Your task to perform on an android device: Go to Yahoo.com Image 0: 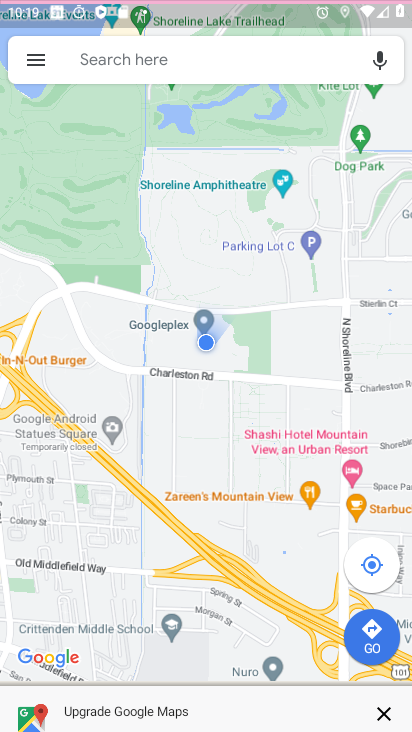
Step 0: press home button
Your task to perform on an android device: Go to Yahoo.com Image 1: 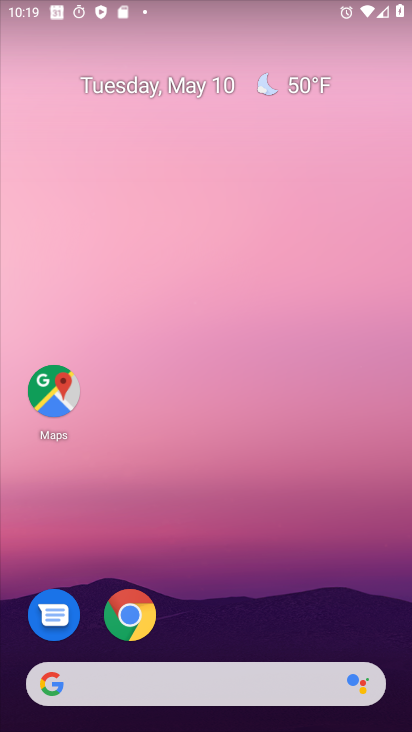
Step 1: click (128, 611)
Your task to perform on an android device: Go to Yahoo.com Image 2: 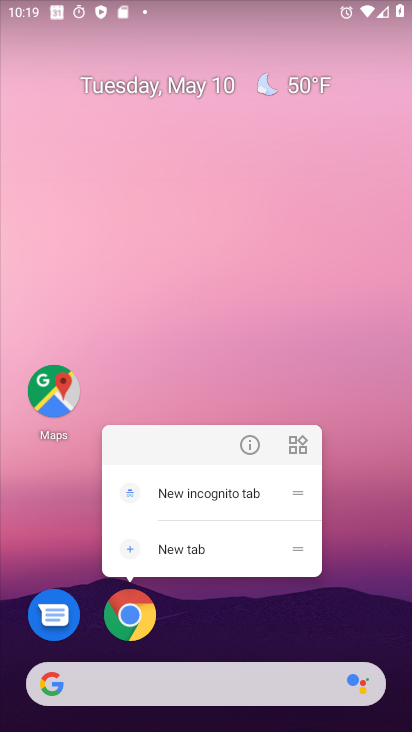
Step 2: click (128, 613)
Your task to perform on an android device: Go to Yahoo.com Image 3: 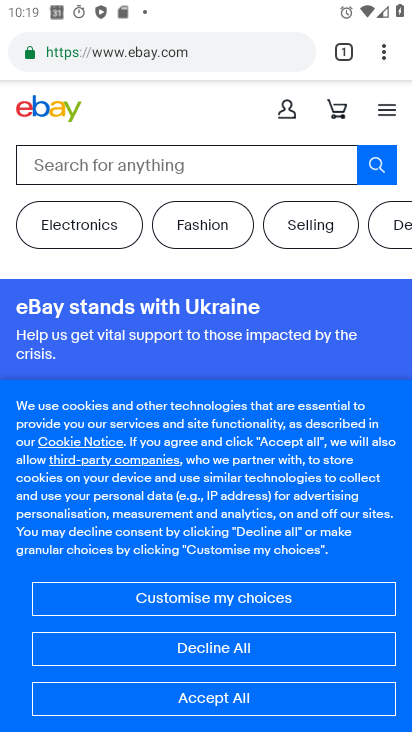
Step 3: click (342, 47)
Your task to perform on an android device: Go to Yahoo.com Image 4: 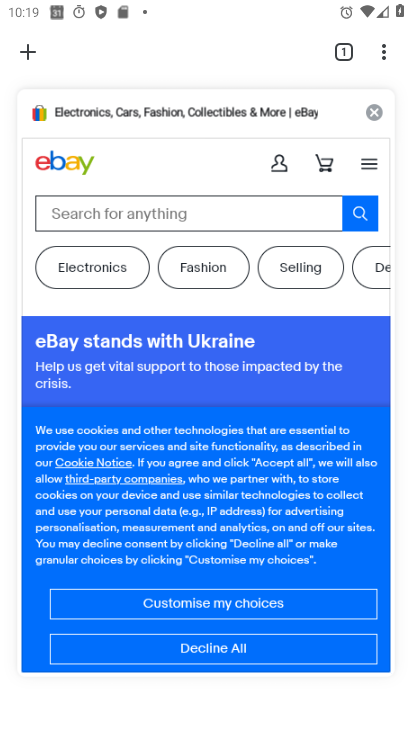
Step 4: click (372, 109)
Your task to perform on an android device: Go to Yahoo.com Image 5: 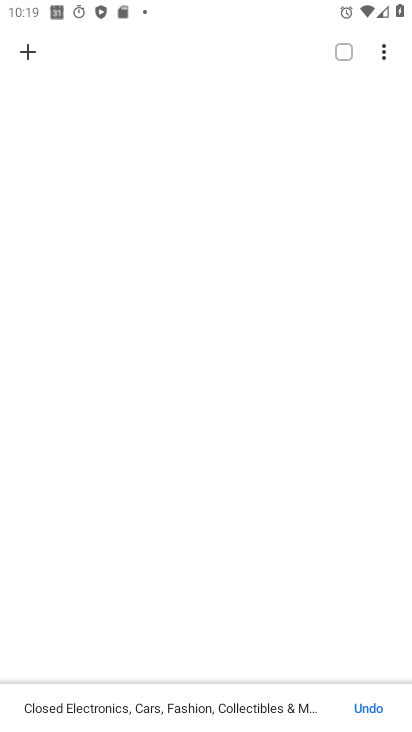
Step 5: click (28, 53)
Your task to perform on an android device: Go to Yahoo.com Image 6: 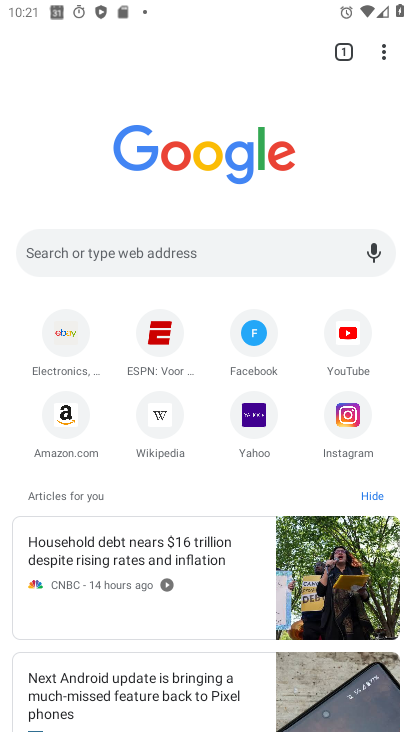
Step 6: click (253, 414)
Your task to perform on an android device: Go to Yahoo.com Image 7: 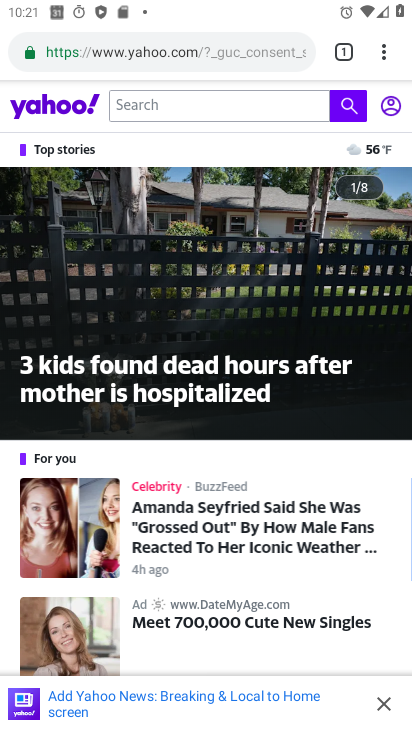
Step 7: click (386, 704)
Your task to perform on an android device: Go to Yahoo.com Image 8: 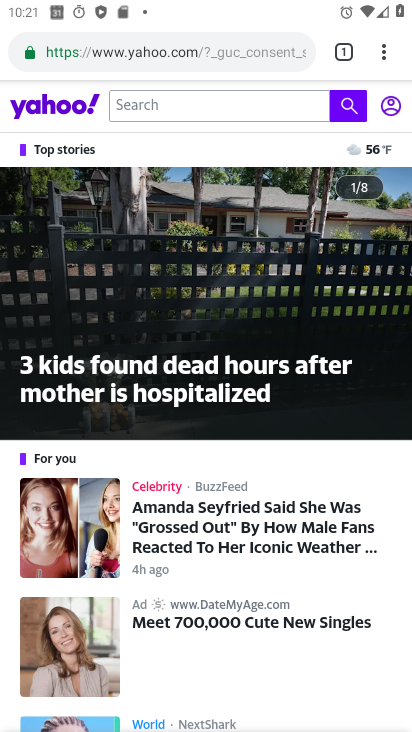
Step 8: task complete